Your task to perform on an android device: Go to wifi settings Image 0: 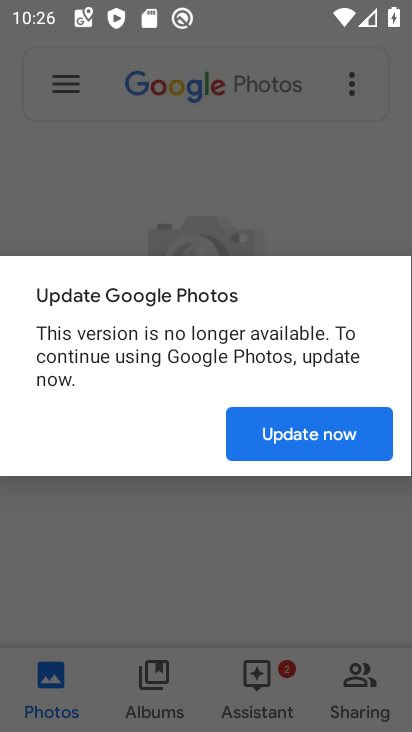
Step 0: press back button
Your task to perform on an android device: Go to wifi settings Image 1: 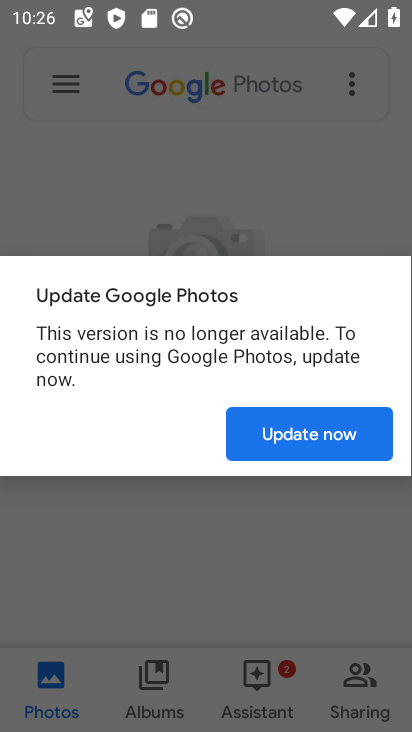
Step 1: press back button
Your task to perform on an android device: Go to wifi settings Image 2: 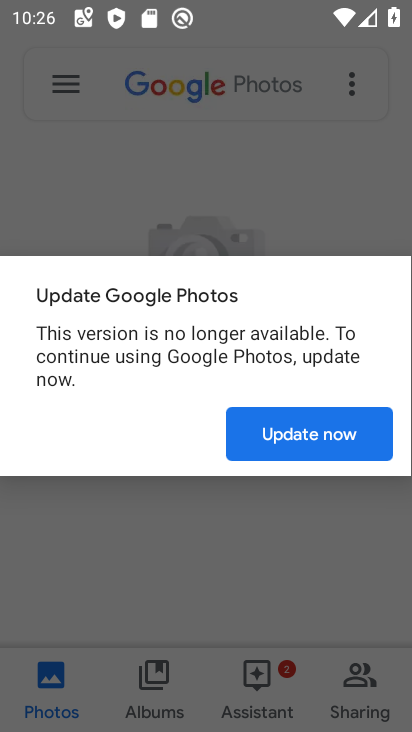
Step 2: press home button
Your task to perform on an android device: Go to wifi settings Image 3: 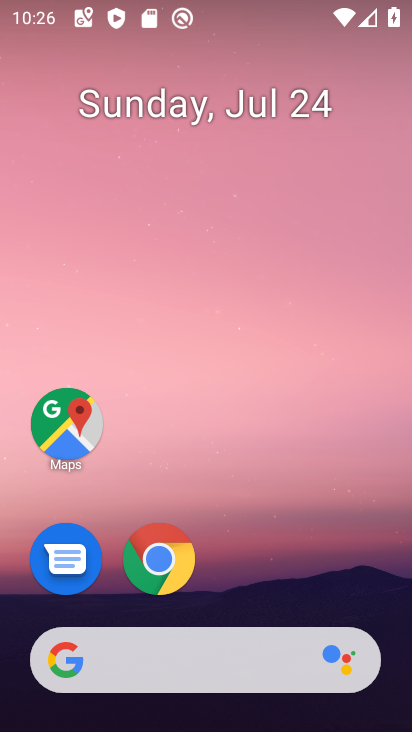
Step 3: drag from (107, 30) to (188, 686)
Your task to perform on an android device: Go to wifi settings Image 4: 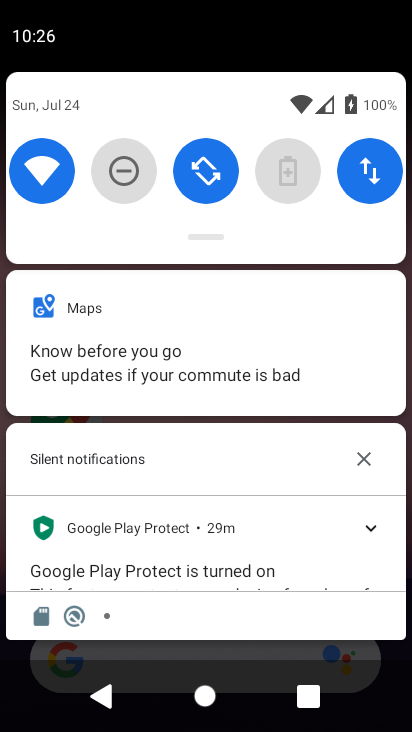
Step 4: click (37, 173)
Your task to perform on an android device: Go to wifi settings Image 5: 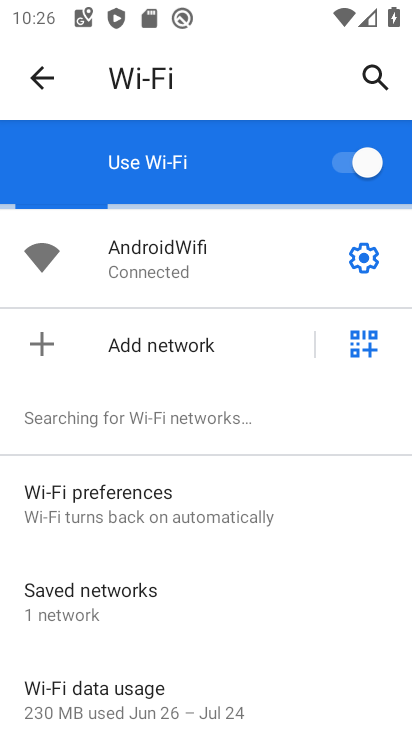
Step 5: task complete